Your task to perform on an android device: Go to Android settings Image 0: 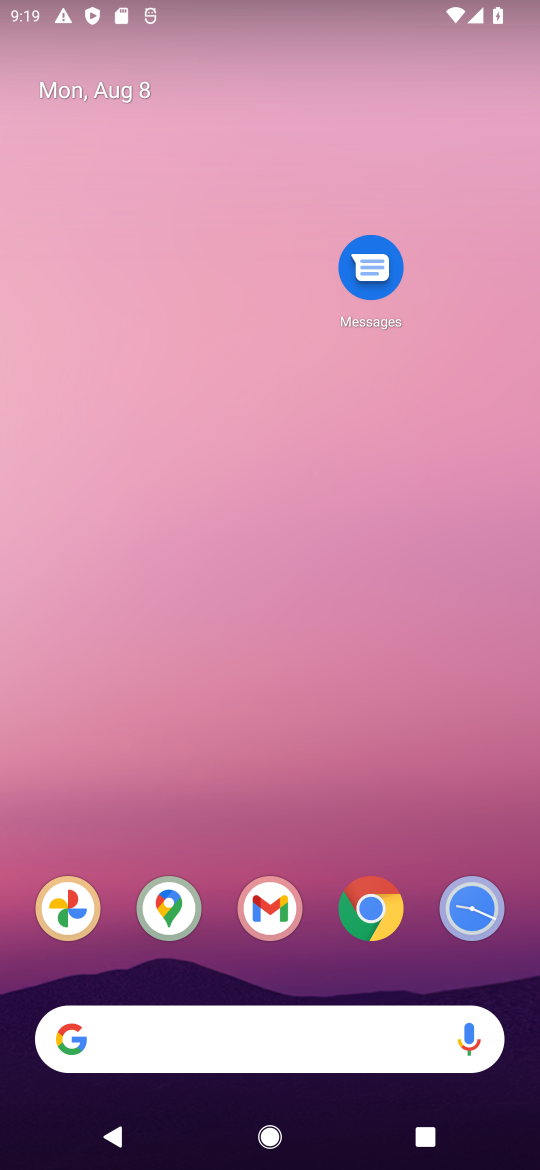
Step 0: drag from (278, 833) to (264, 211)
Your task to perform on an android device: Go to Android settings Image 1: 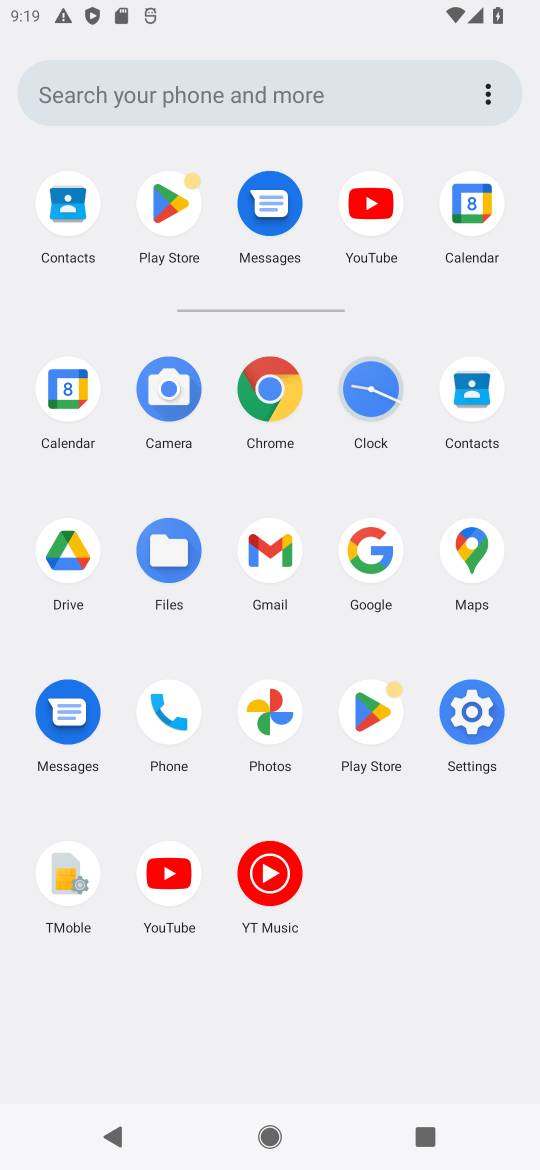
Step 1: click (452, 707)
Your task to perform on an android device: Go to Android settings Image 2: 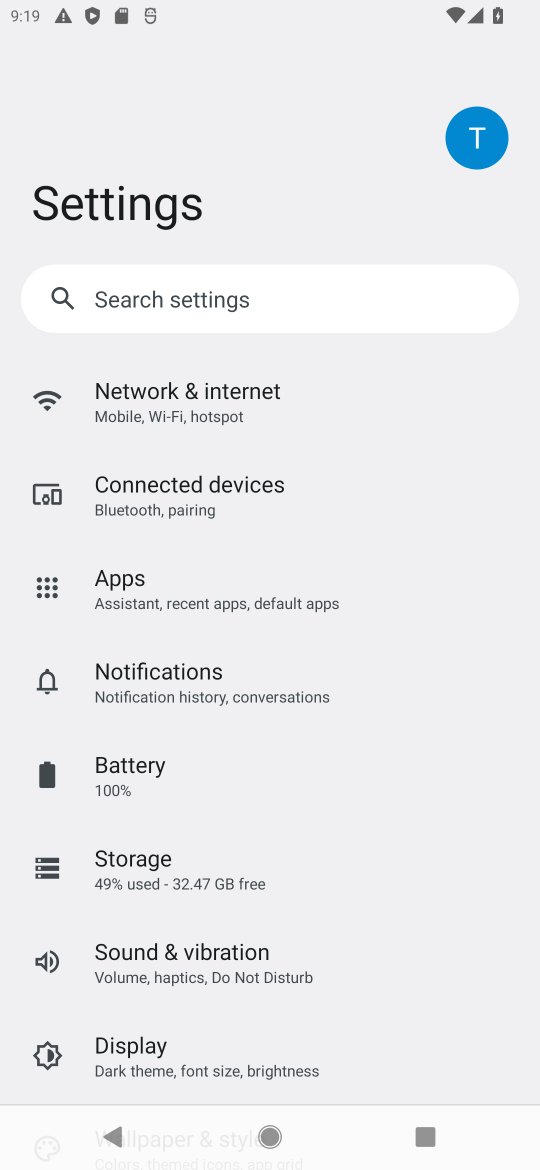
Step 2: task complete